Your task to perform on an android device: Open location settings Image 0: 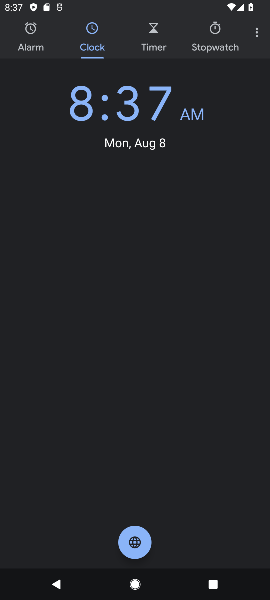
Step 0: press home button
Your task to perform on an android device: Open location settings Image 1: 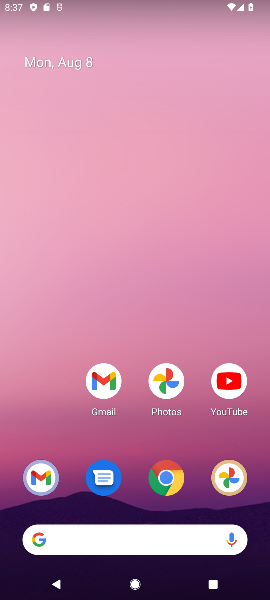
Step 1: drag from (145, 534) to (175, 46)
Your task to perform on an android device: Open location settings Image 2: 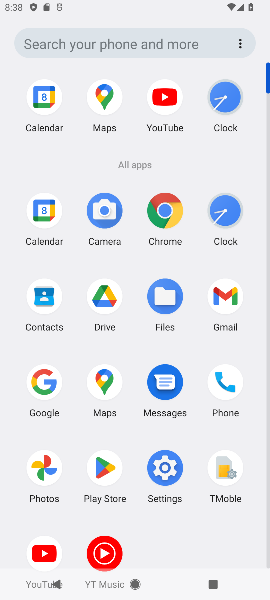
Step 2: click (158, 473)
Your task to perform on an android device: Open location settings Image 3: 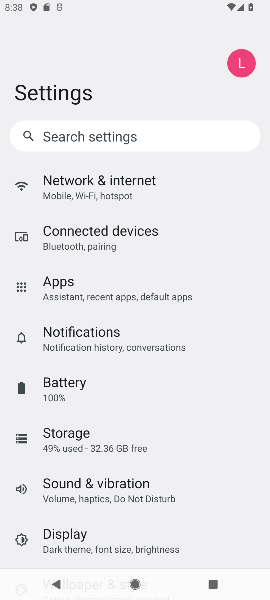
Step 3: drag from (143, 490) to (244, 121)
Your task to perform on an android device: Open location settings Image 4: 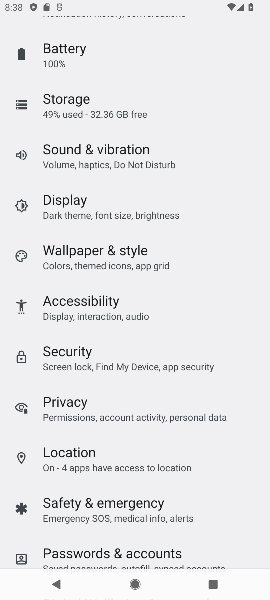
Step 4: click (92, 457)
Your task to perform on an android device: Open location settings Image 5: 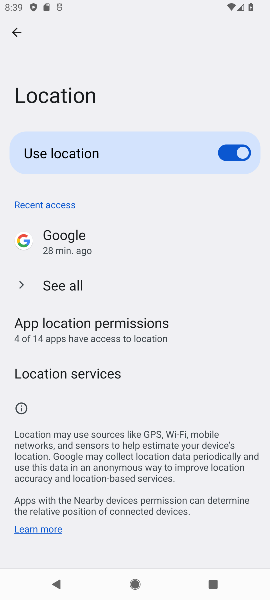
Step 5: task complete